Your task to perform on an android device: install app "Spotify: Music and Podcasts" Image 0: 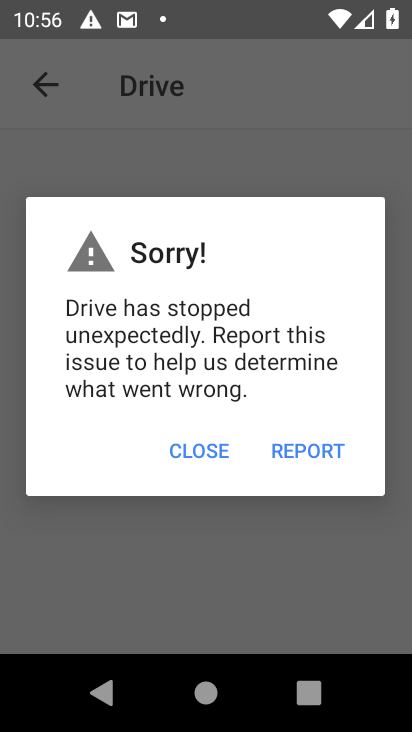
Step 0: press home button
Your task to perform on an android device: install app "Spotify: Music and Podcasts" Image 1: 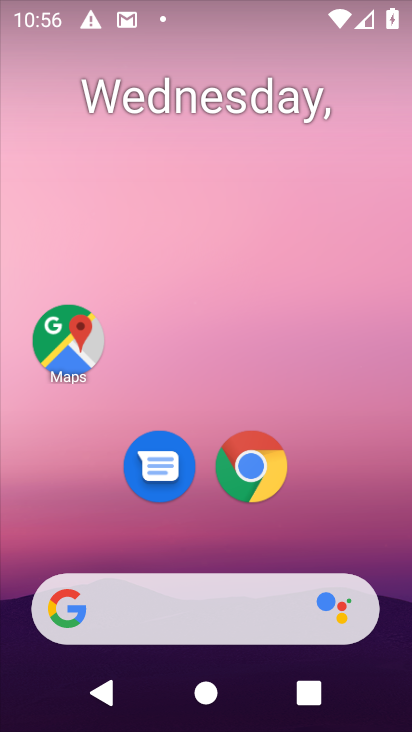
Step 1: drag from (242, 597) to (323, 40)
Your task to perform on an android device: install app "Spotify: Music and Podcasts" Image 2: 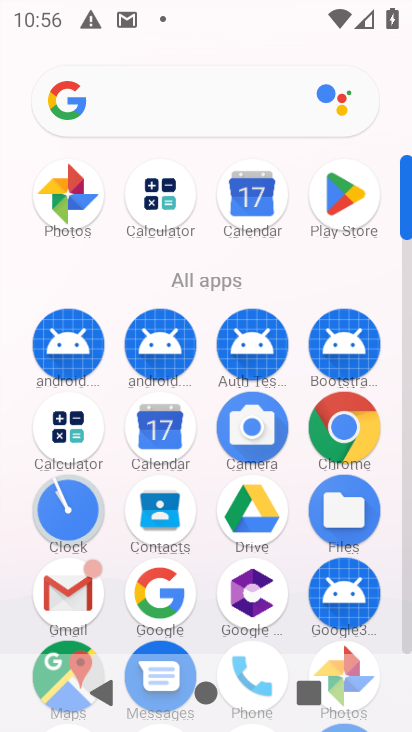
Step 2: click (328, 216)
Your task to perform on an android device: install app "Spotify: Music and Podcasts" Image 3: 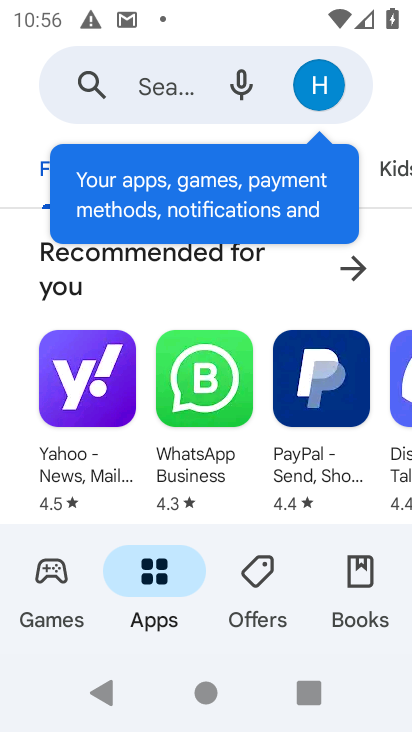
Step 3: click (165, 93)
Your task to perform on an android device: install app "Spotify: Music and Podcasts" Image 4: 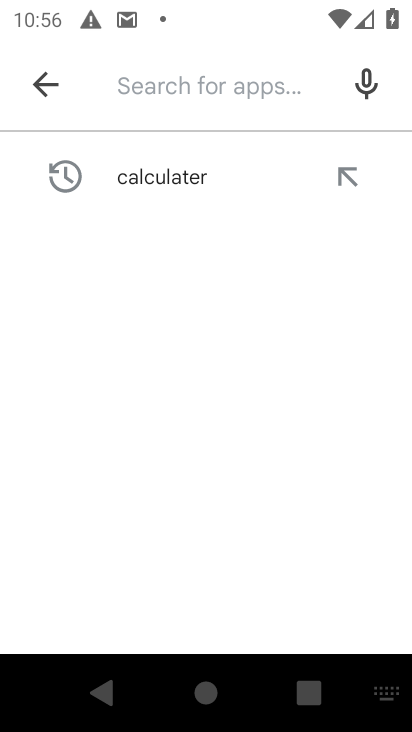
Step 4: type "Spotify: Music and Podcasts"
Your task to perform on an android device: install app "Spotify: Music and Podcasts" Image 5: 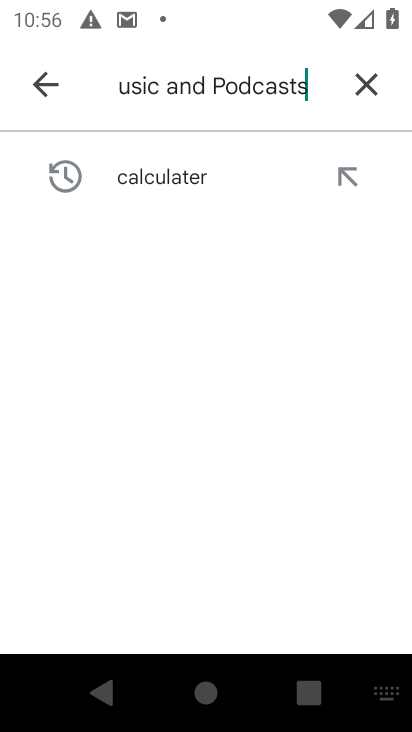
Step 5: type ""
Your task to perform on an android device: install app "Spotify: Music and Podcasts" Image 6: 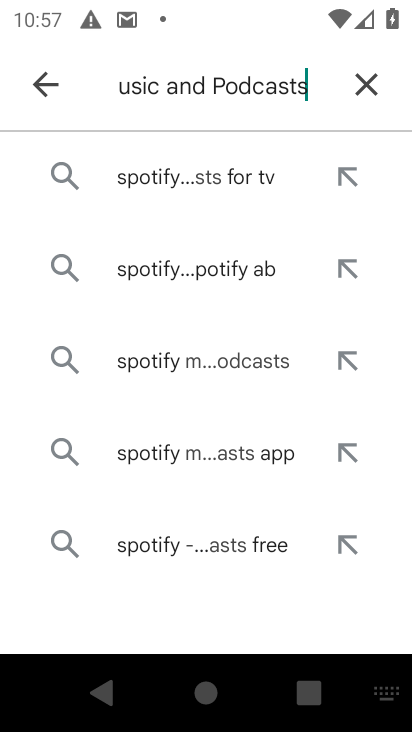
Step 6: click (225, 165)
Your task to perform on an android device: install app "Spotify: Music and Podcasts" Image 7: 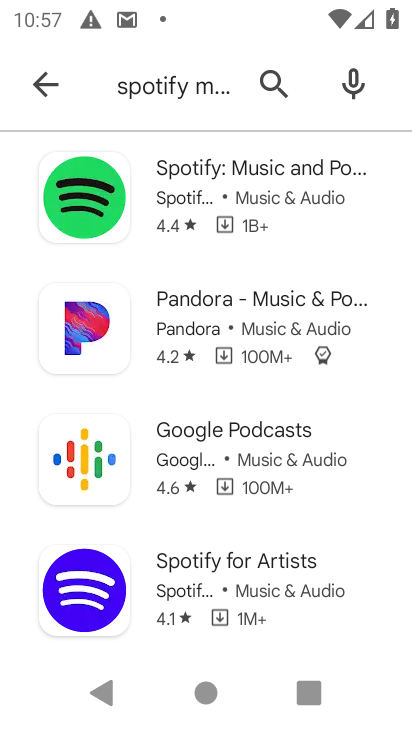
Step 7: click (224, 223)
Your task to perform on an android device: install app "Spotify: Music and Podcasts" Image 8: 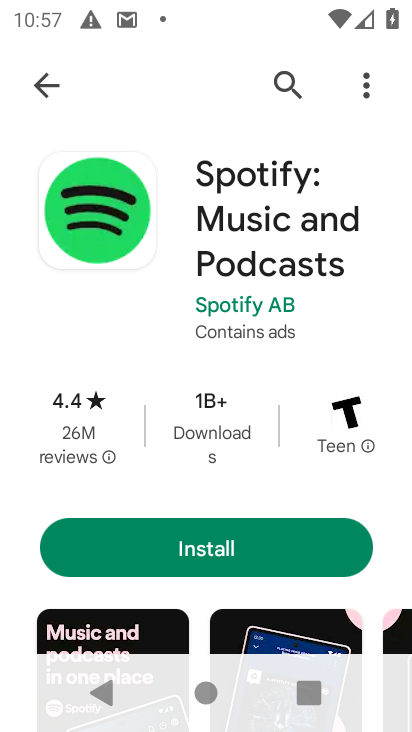
Step 8: click (239, 544)
Your task to perform on an android device: install app "Spotify: Music and Podcasts" Image 9: 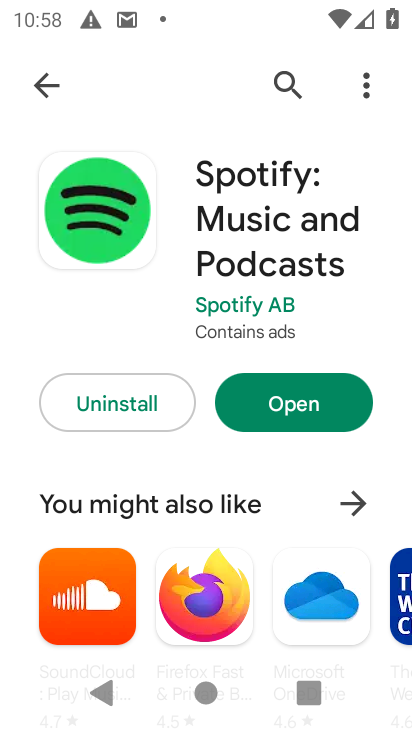
Step 9: task complete